Your task to perform on an android device: toggle data saver in the chrome app Image 0: 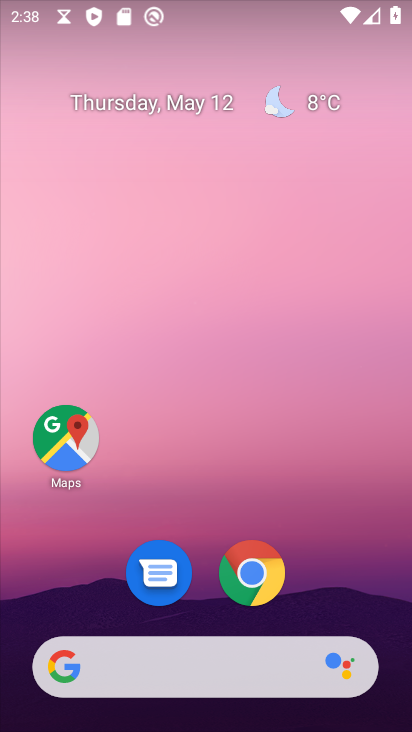
Step 0: click (246, 562)
Your task to perform on an android device: toggle data saver in the chrome app Image 1: 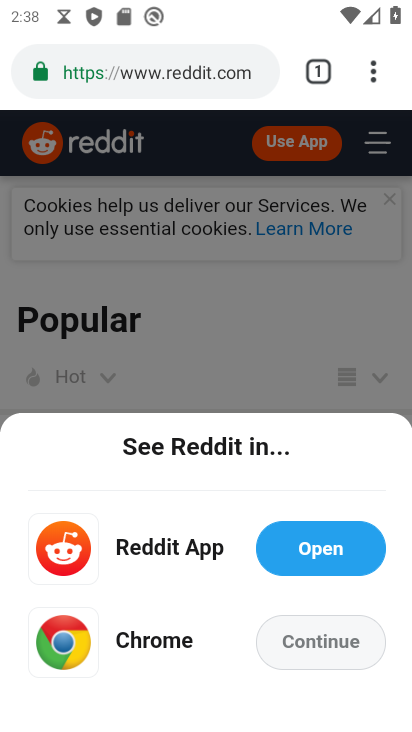
Step 1: click (372, 71)
Your task to perform on an android device: toggle data saver in the chrome app Image 2: 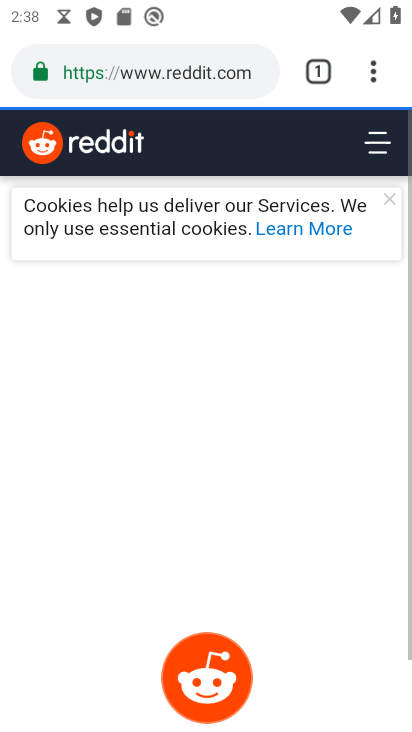
Step 2: drag from (372, 71) to (161, 571)
Your task to perform on an android device: toggle data saver in the chrome app Image 3: 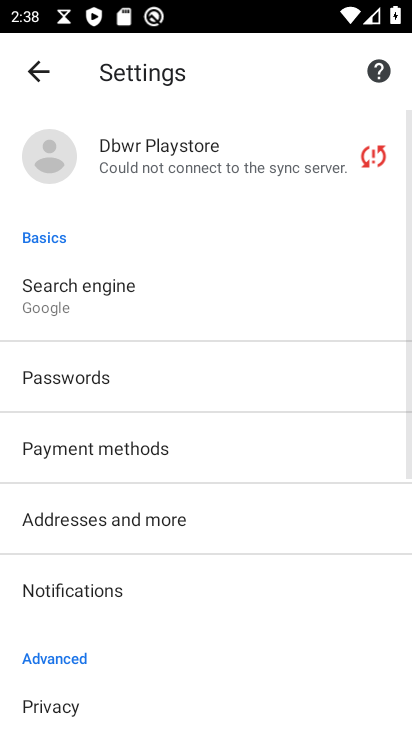
Step 3: drag from (215, 669) to (248, 357)
Your task to perform on an android device: toggle data saver in the chrome app Image 4: 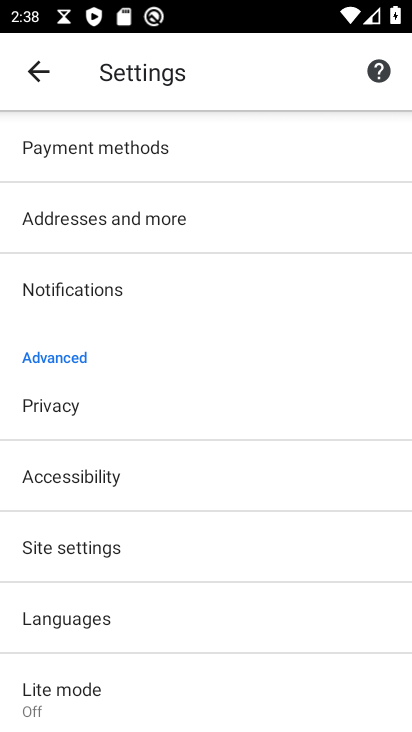
Step 4: click (90, 689)
Your task to perform on an android device: toggle data saver in the chrome app Image 5: 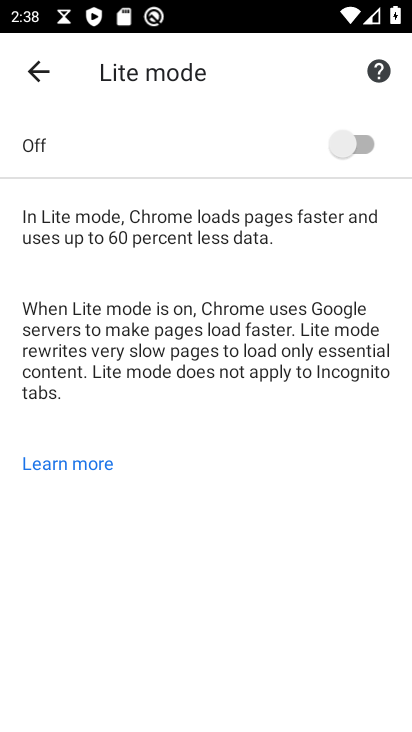
Step 5: click (360, 141)
Your task to perform on an android device: toggle data saver in the chrome app Image 6: 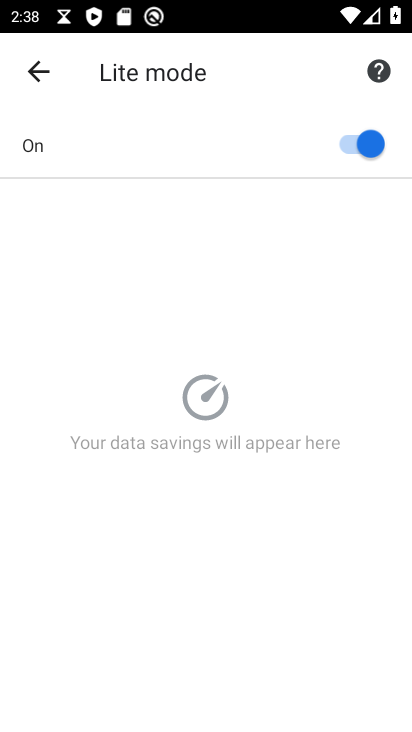
Step 6: task complete